Your task to perform on an android device: turn on showing notifications on the lock screen Image 0: 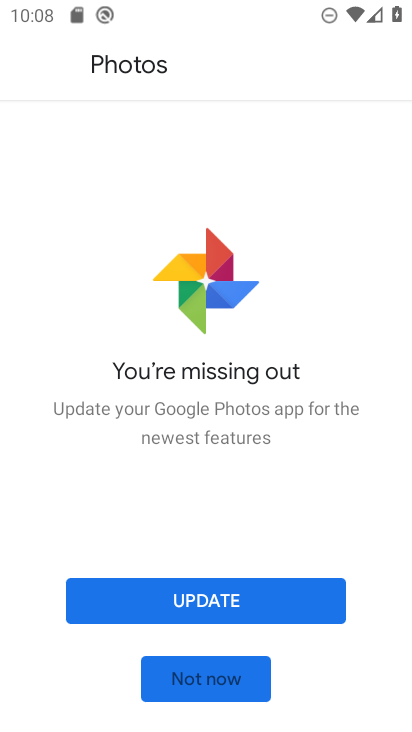
Step 0: press home button
Your task to perform on an android device: turn on showing notifications on the lock screen Image 1: 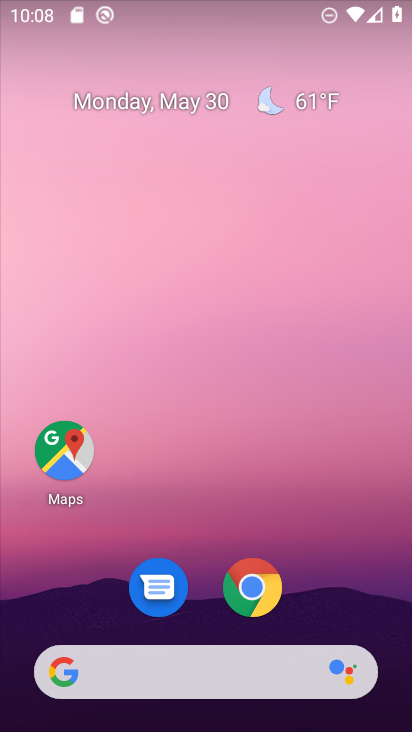
Step 1: drag from (231, 653) to (312, 12)
Your task to perform on an android device: turn on showing notifications on the lock screen Image 2: 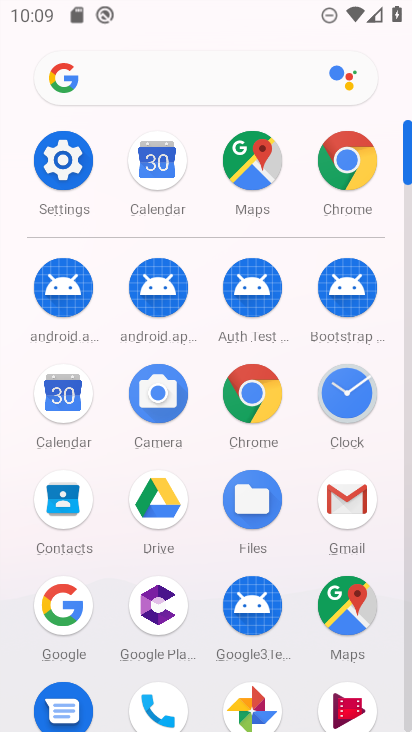
Step 2: click (49, 176)
Your task to perform on an android device: turn on showing notifications on the lock screen Image 3: 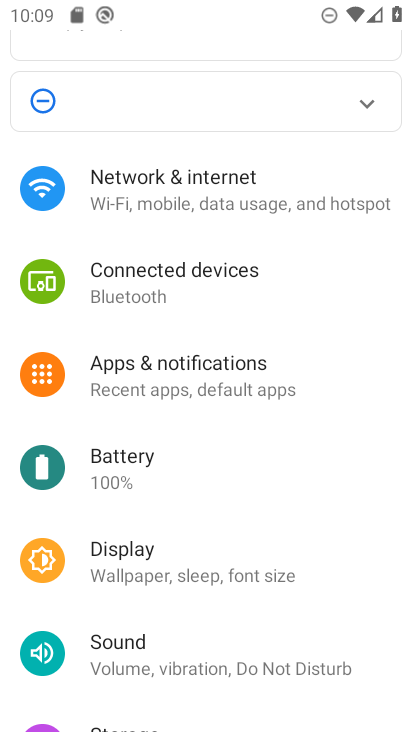
Step 3: drag from (145, 545) to (15, 127)
Your task to perform on an android device: turn on showing notifications on the lock screen Image 4: 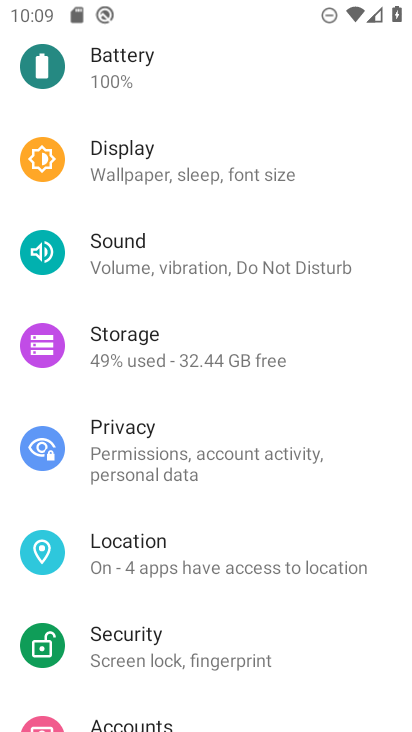
Step 4: drag from (215, 157) to (254, 567)
Your task to perform on an android device: turn on showing notifications on the lock screen Image 5: 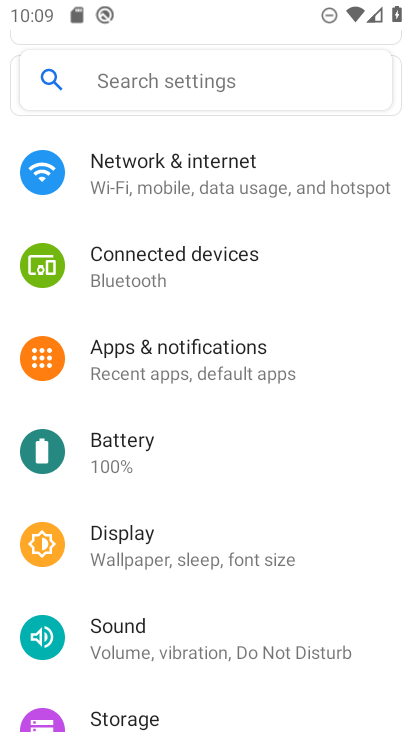
Step 5: click (195, 361)
Your task to perform on an android device: turn on showing notifications on the lock screen Image 6: 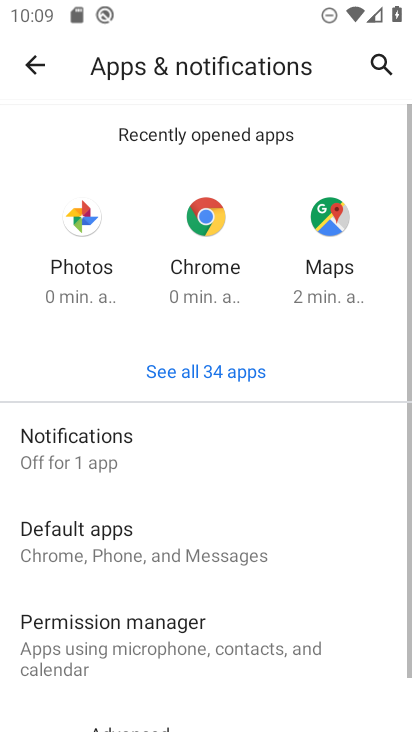
Step 6: drag from (174, 629) to (159, 290)
Your task to perform on an android device: turn on showing notifications on the lock screen Image 7: 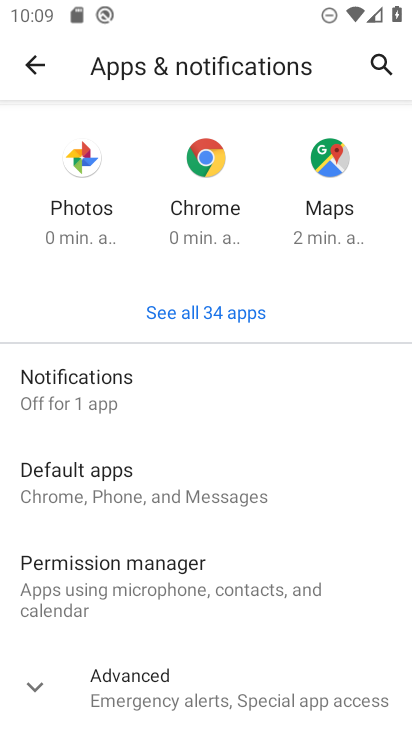
Step 7: click (123, 375)
Your task to perform on an android device: turn on showing notifications on the lock screen Image 8: 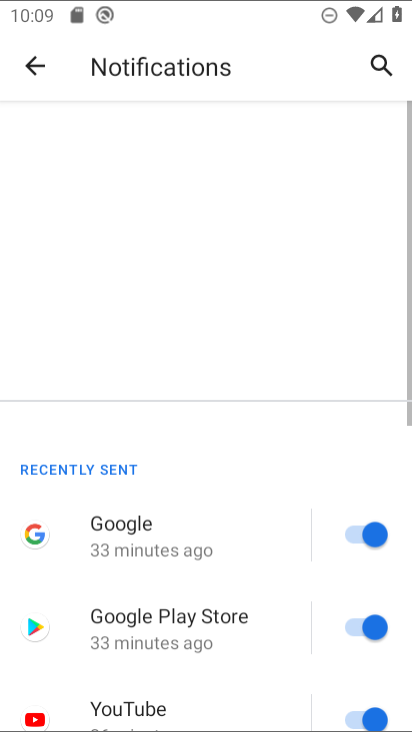
Step 8: drag from (179, 613) to (189, 2)
Your task to perform on an android device: turn on showing notifications on the lock screen Image 9: 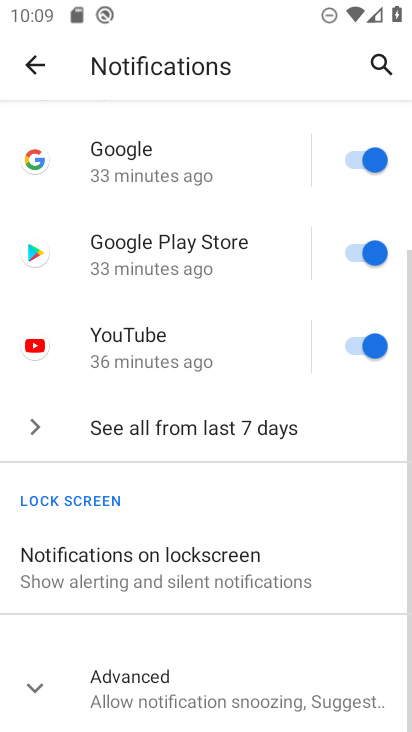
Step 9: click (183, 573)
Your task to perform on an android device: turn on showing notifications on the lock screen Image 10: 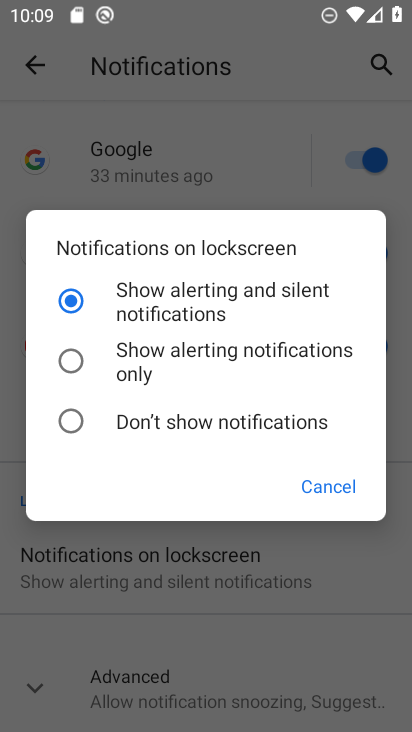
Step 10: click (178, 304)
Your task to perform on an android device: turn on showing notifications on the lock screen Image 11: 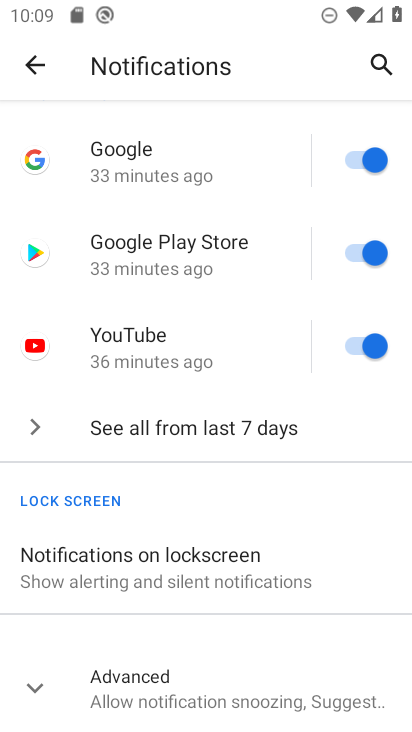
Step 11: task complete